Your task to perform on an android device: open chrome privacy settings Image 0: 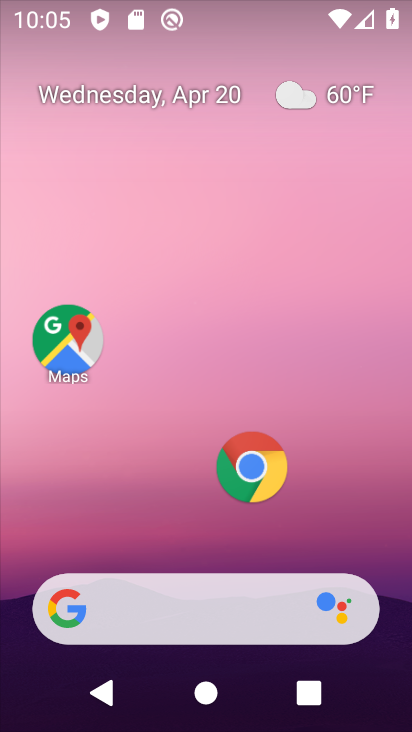
Step 0: click (243, 463)
Your task to perform on an android device: open chrome privacy settings Image 1: 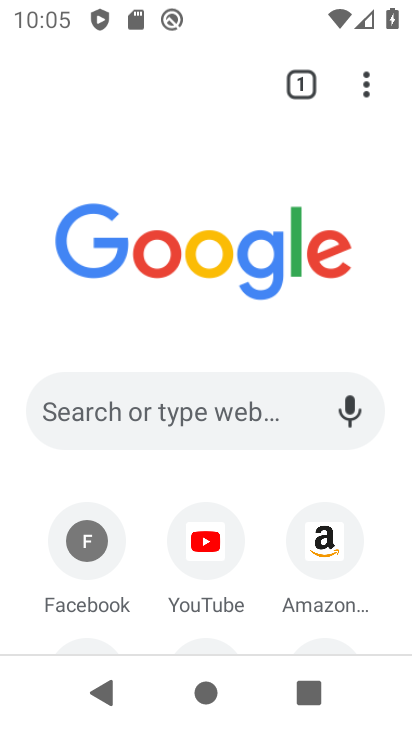
Step 1: click (365, 89)
Your task to perform on an android device: open chrome privacy settings Image 2: 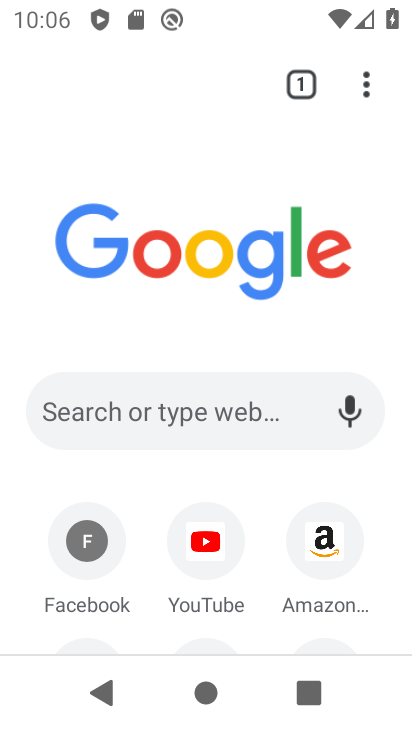
Step 2: click (365, 89)
Your task to perform on an android device: open chrome privacy settings Image 3: 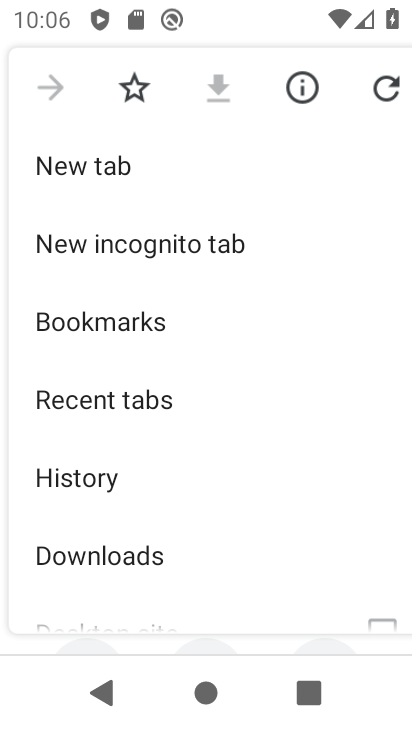
Step 3: drag from (201, 560) to (209, 387)
Your task to perform on an android device: open chrome privacy settings Image 4: 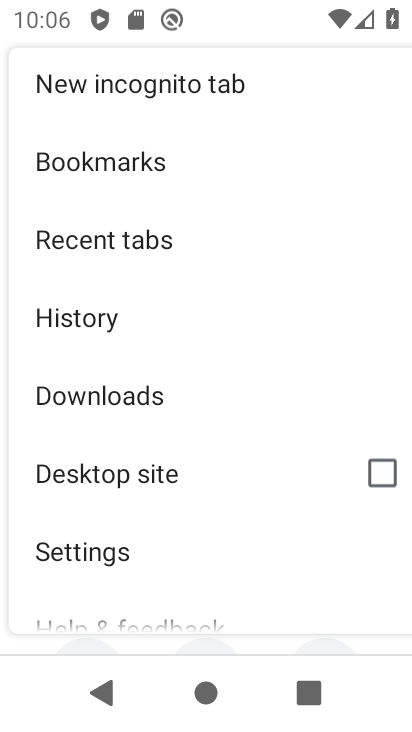
Step 4: drag from (194, 503) to (200, 394)
Your task to perform on an android device: open chrome privacy settings Image 5: 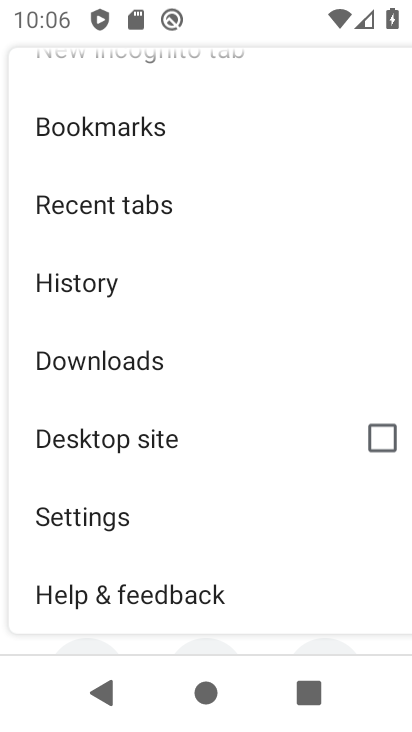
Step 5: click (127, 513)
Your task to perform on an android device: open chrome privacy settings Image 6: 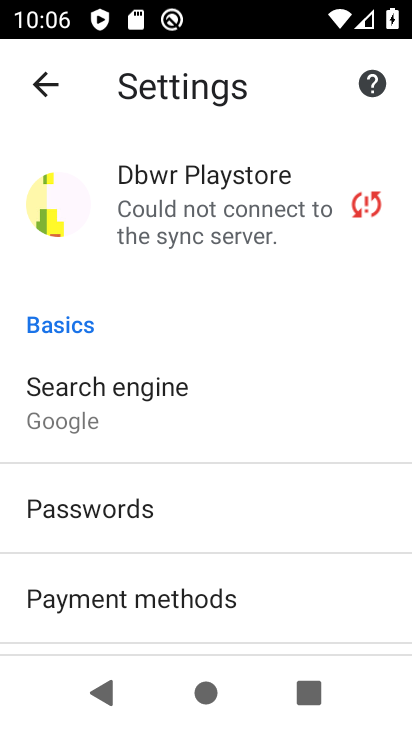
Step 6: drag from (115, 588) to (153, 497)
Your task to perform on an android device: open chrome privacy settings Image 7: 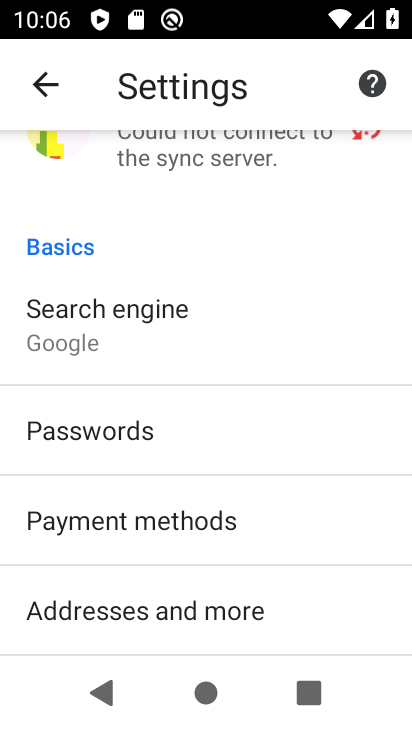
Step 7: drag from (177, 580) to (180, 497)
Your task to perform on an android device: open chrome privacy settings Image 8: 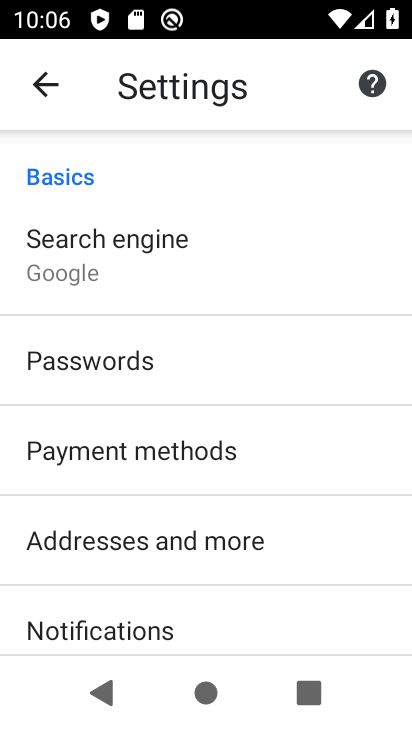
Step 8: drag from (184, 533) to (189, 448)
Your task to perform on an android device: open chrome privacy settings Image 9: 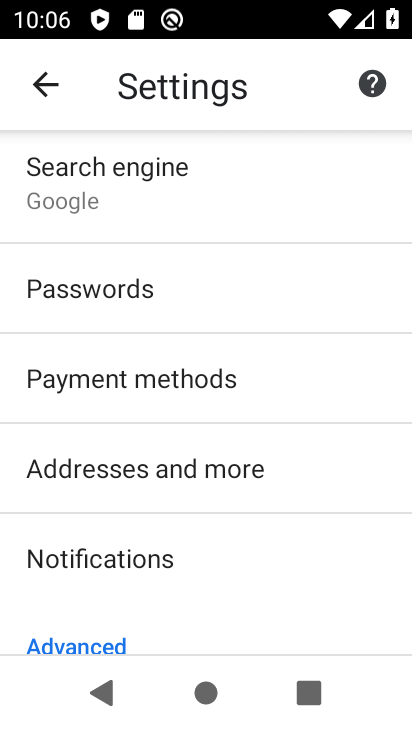
Step 9: drag from (195, 553) to (209, 487)
Your task to perform on an android device: open chrome privacy settings Image 10: 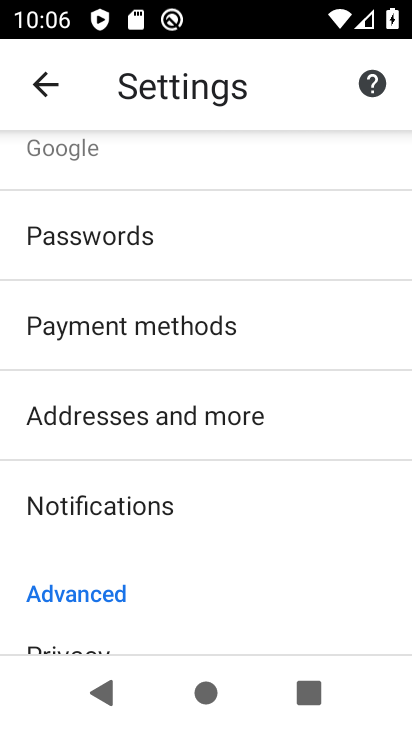
Step 10: drag from (197, 532) to (209, 458)
Your task to perform on an android device: open chrome privacy settings Image 11: 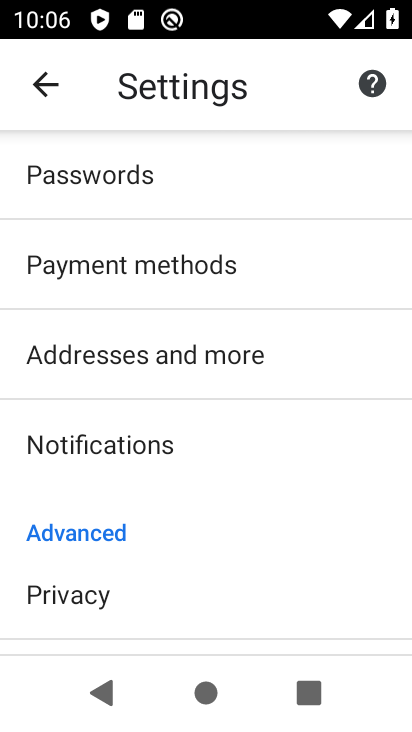
Step 11: click (86, 596)
Your task to perform on an android device: open chrome privacy settings Image 12: 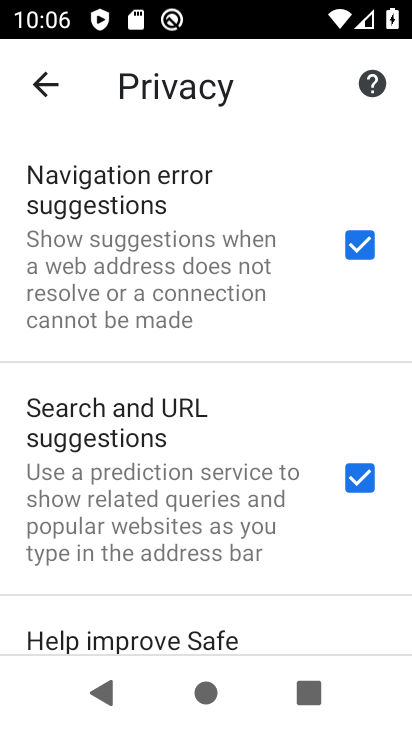
Step 12: task complete